Your task to perform on an android device: open chrome and create a bookmark for the current page Image 0: 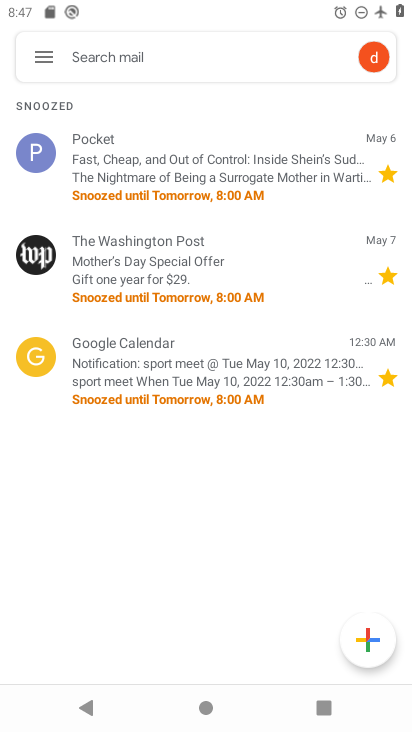
Step 0: press home button
Your task to perform on an android device: open chrome and create a bookmark for the current page Image 1: 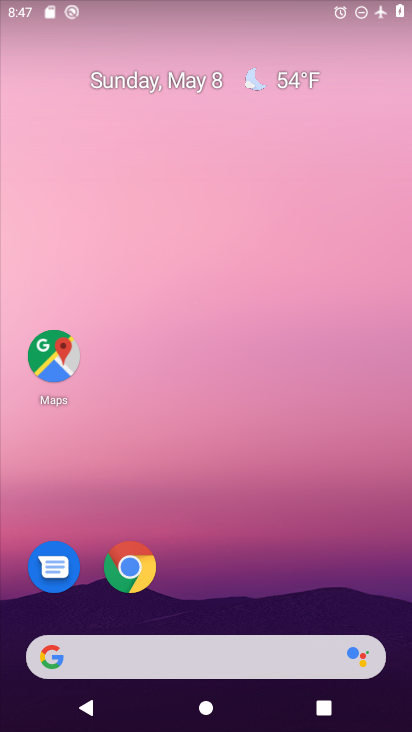
Step 1: click (143, 578)
Your task to perform on an android device: open chrome and create a bookmark for the current page Image 2: 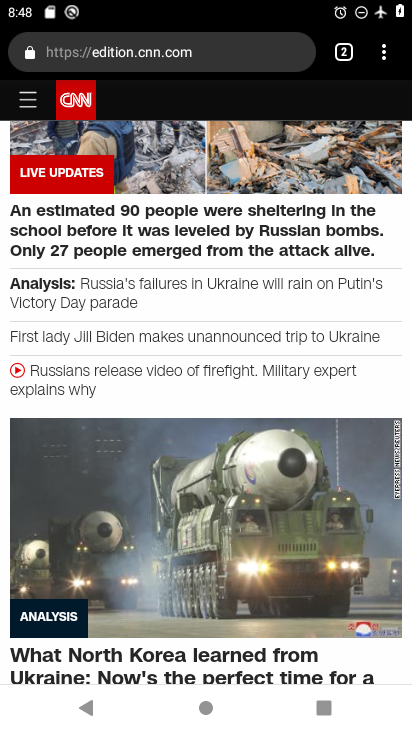
Step 2: task complete